Your task to perform on an android device: toggle notification dots Image 0: 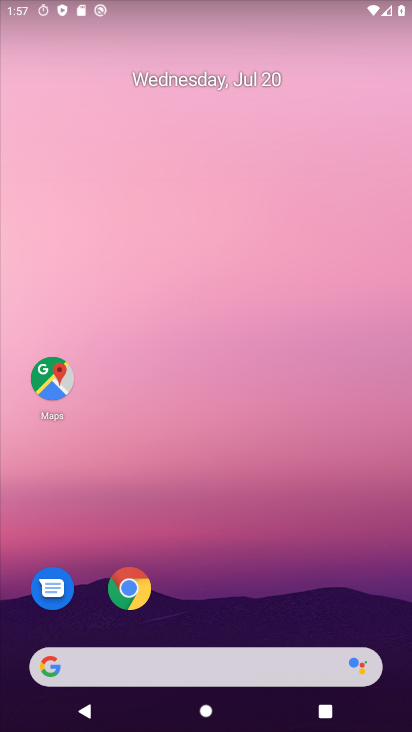
Step 0: drag from (187, 502) to (250, 15)
Your task to perform on an android device: toggle notification dots Image 1: 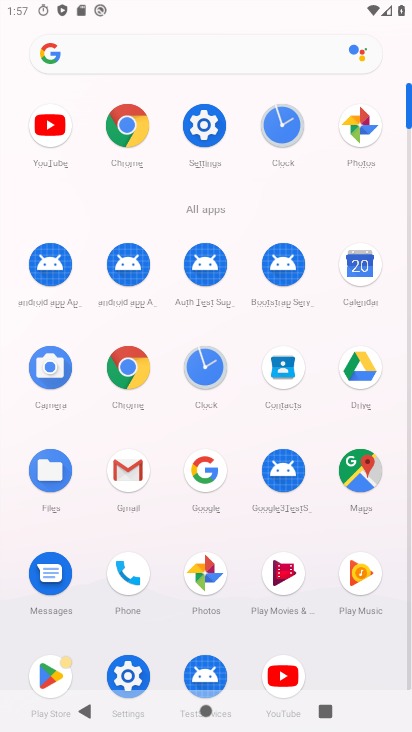
Step 1: click (206, 117)
Your task to perform on an android device: toggle notification dots Image 2: 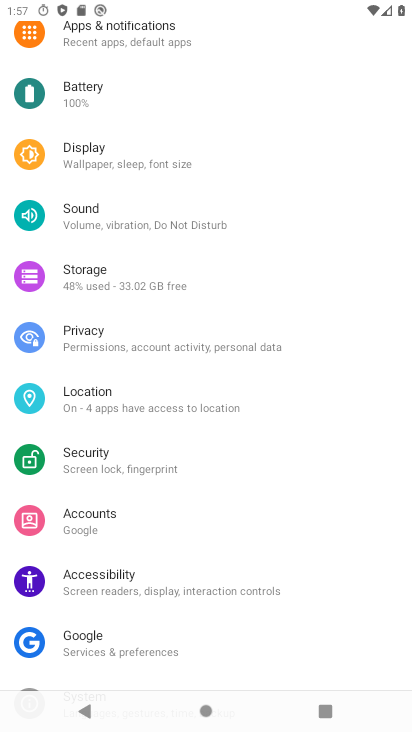
Step 2: click (148, 29)
Your task to perform on an android device: toggle notification dots Image 3: 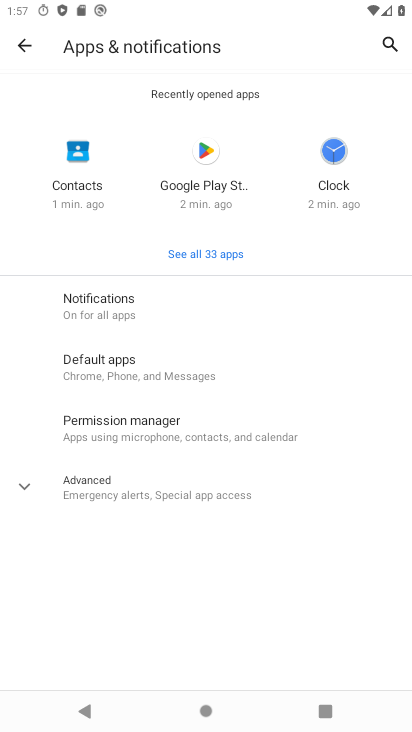
Step 3: click (127, 301)
Your task to perform on an android device: toggle notification dots Image 4: 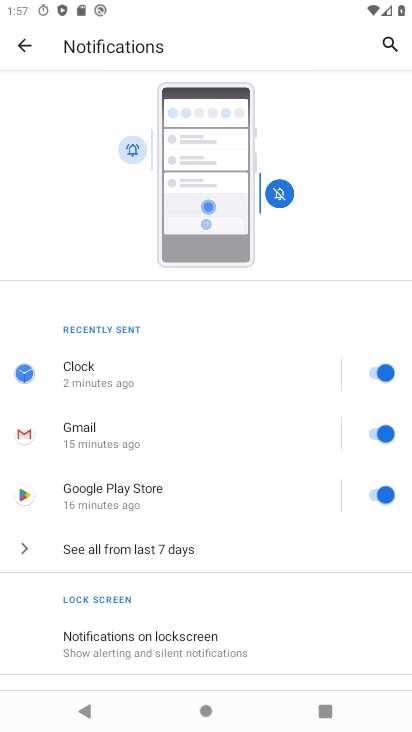
Step 4: drag from (208, 625) to (243, 332)
Your task to perform on an android device: toggle notification dots Image 5: 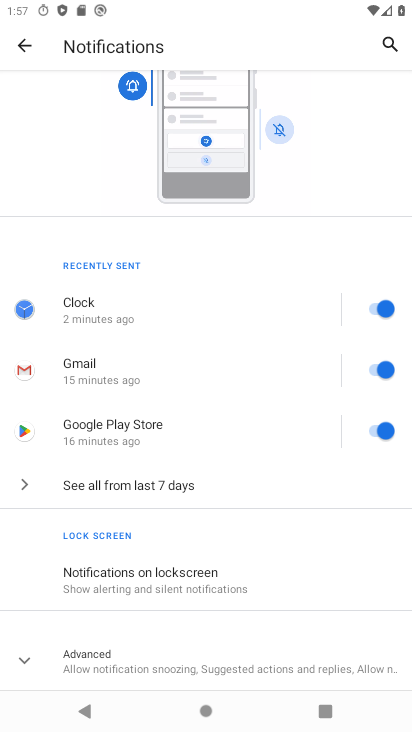
Step 5: click (214, 660)
Your task to perform on an android device: toggle notification dots Image 6: 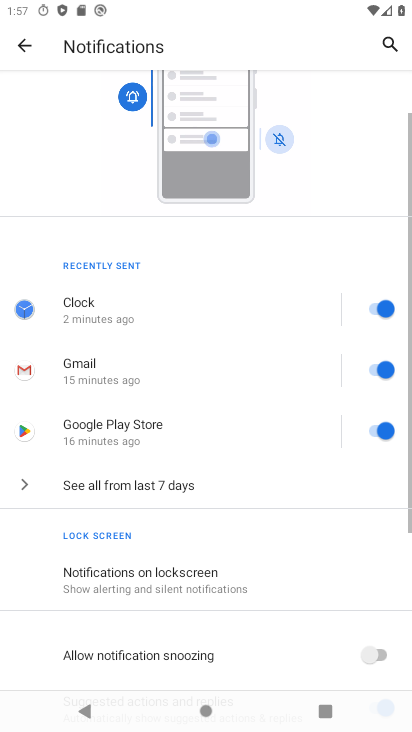
Step 6: drag from (256, 516) to (303, 292)
Your task to perform on an android device: toggle notification dots Image 7: 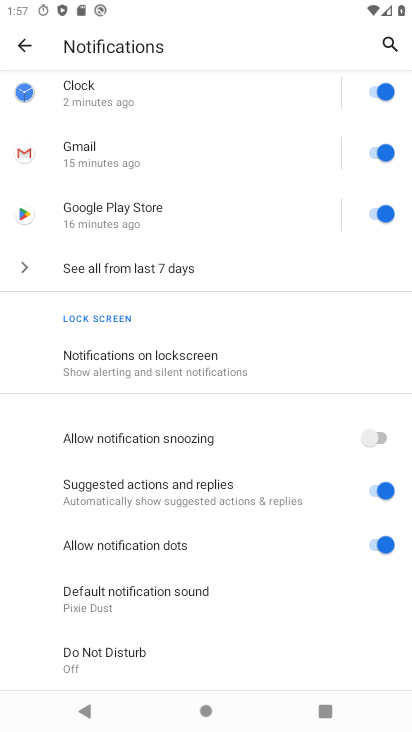
Step 7: click (374, 541)
Your task to perform on an android device: toggle notification dots Image 8: 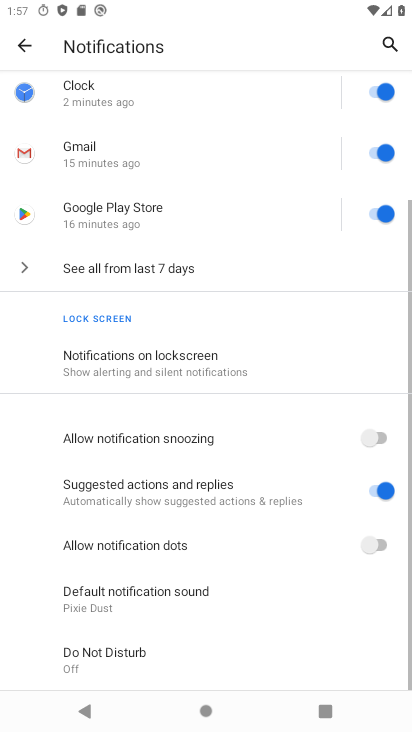
Step 8: task complete